Your task to perform on an android device: Open network settings Image 0: 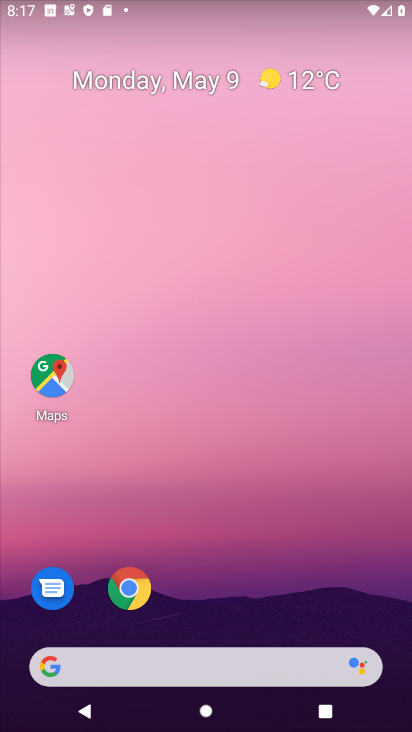
Step 0: drag from (151, 667) to (312, 100)
Your task to perform on an android device: Open network settings Image 1: 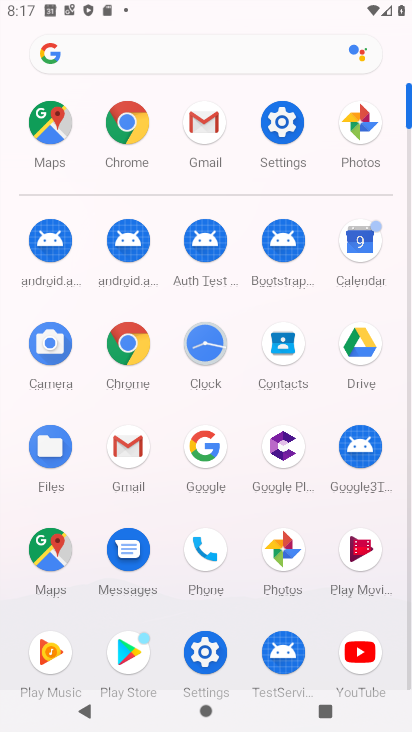
Step 1: click (289, 121)
Your task to perform on an android device: Open network settings Image 2: 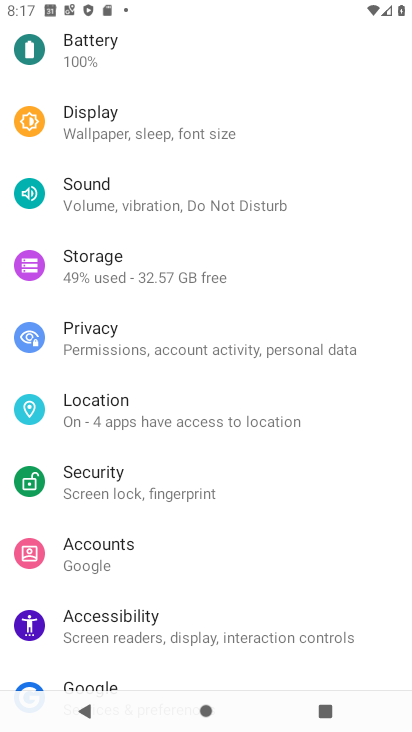
Step 2: drag from (256, 66) to (162, 579)
Your task to perform on an android device: Open network settings Image 3: 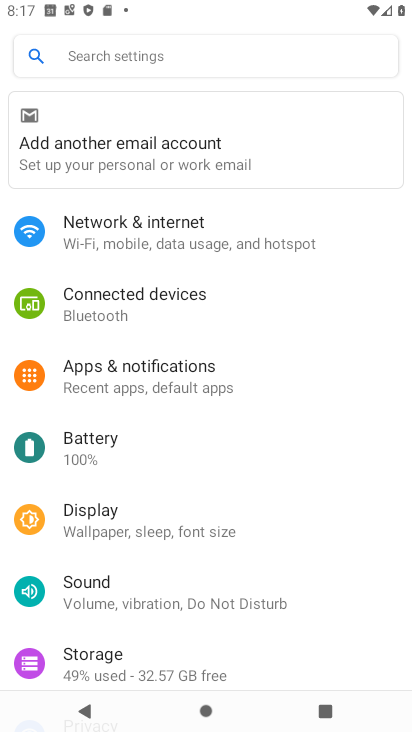
Step 3: click (161, 234)
Your task to perform on an android device: Open network settings Image 4: 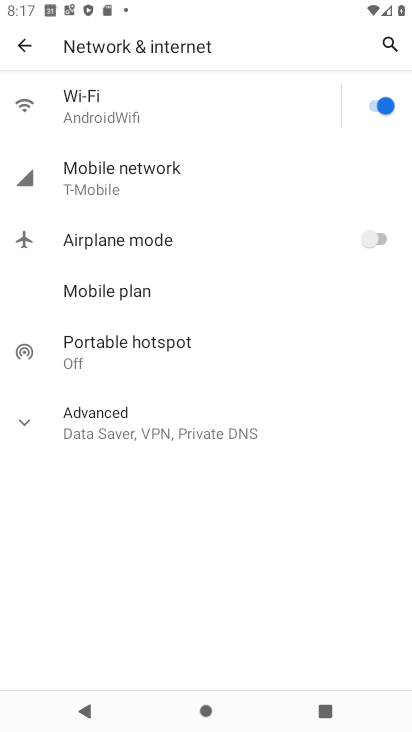
Step 4: task complete